Your task to perform on an android device: change alarm snooze length Image 0: 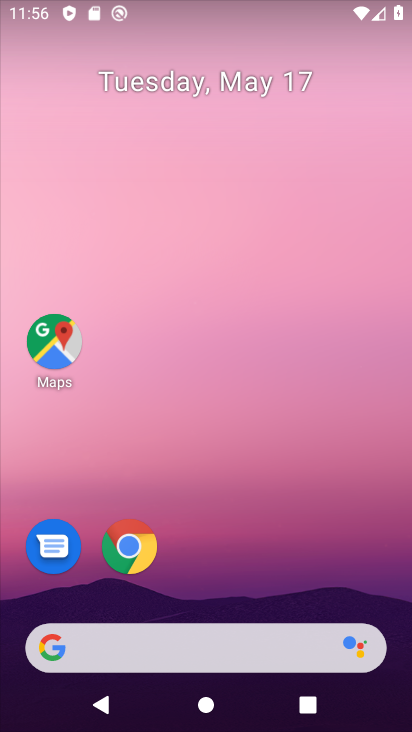
Step 0: drag from (203, 618) to (280, 125)
Your task to perform on an android device: change alarm snooze length Image 1: 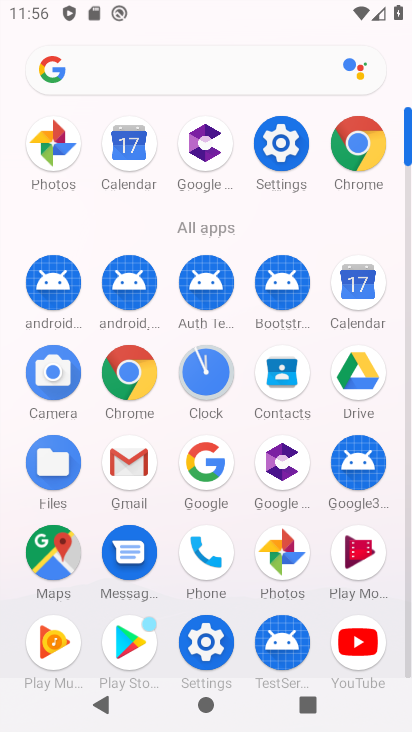
Step 1: click (214, 392)
Your task to perform on an android device: change alarm snooze length Image 2: 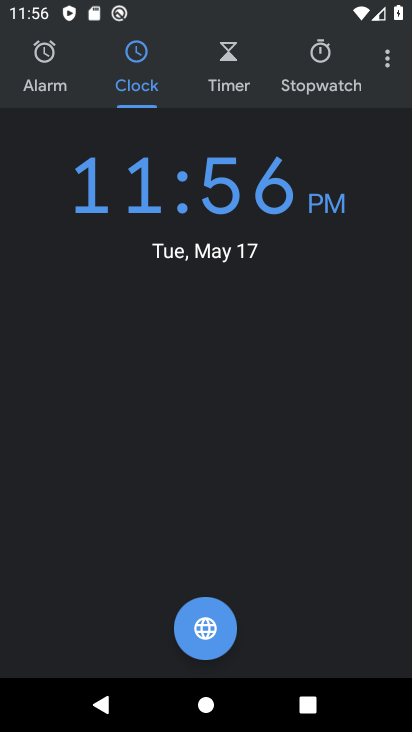
Step 2: click (396, 76)
Your task to perform on an android device: change alarm snooze length Image 3: 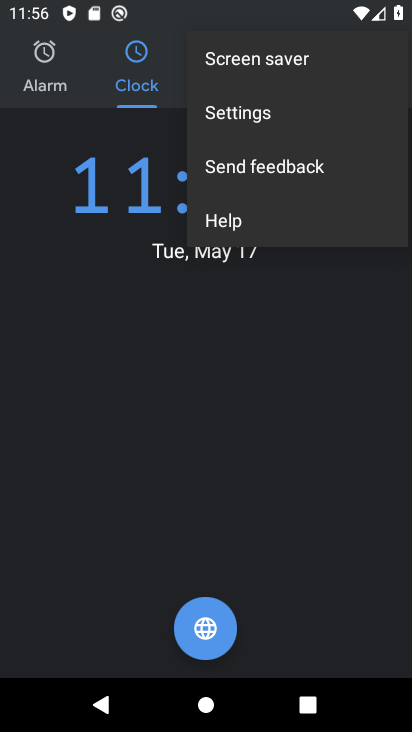
Step 3: click (349, 125)
Your task to perform on an android device: change alarm snooze length Image 4: 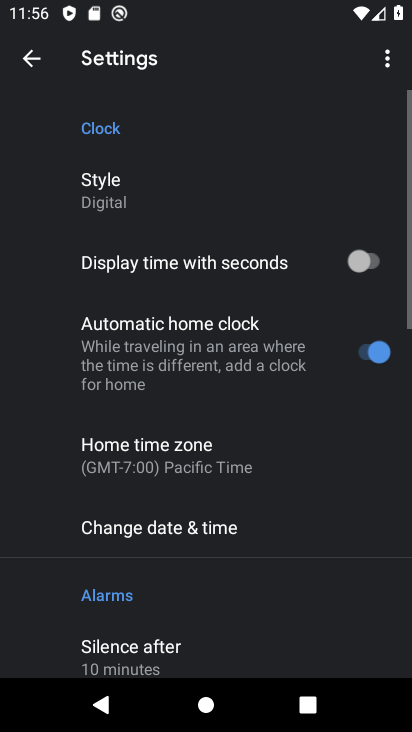
Step 4: drag from (214, 529) to (304, 222)
Your task to perform on an android device: change alarm snooze length Image 5: 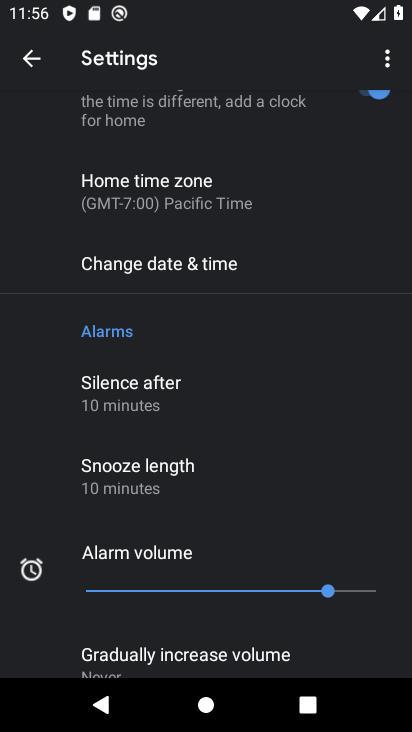
Step 5: click (291, 491)
Your task to perform on an android device: change alarm snooze length Image 6: 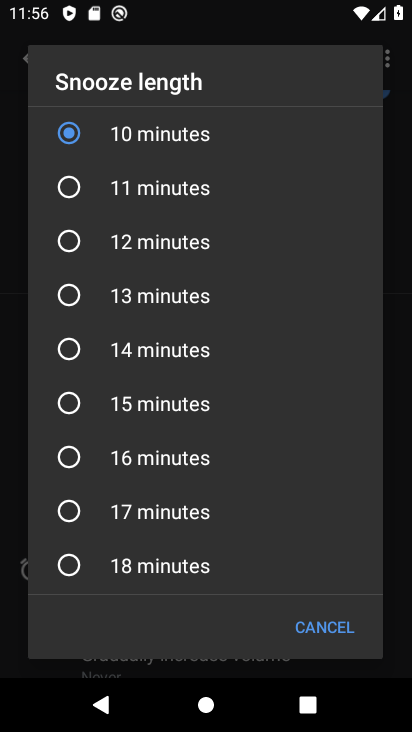
Step 6: drag from (201, 567) to (241, 311)
Your task to perform on an android device: change alarm snooze length Image 7: 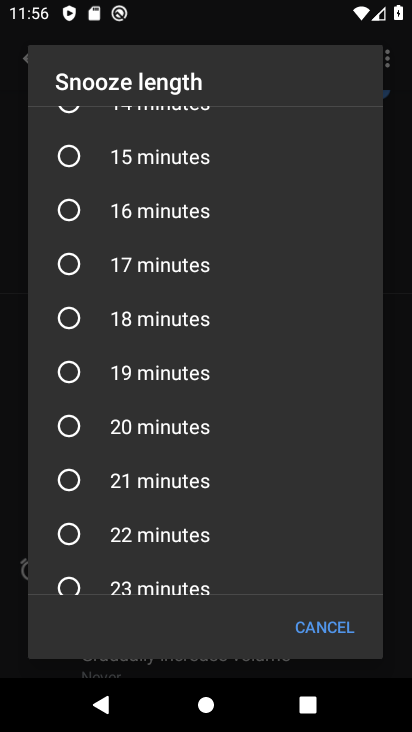
Step 7: click (168, 420)
Your task to perform on an android device: change alarm snooze length Image 8: 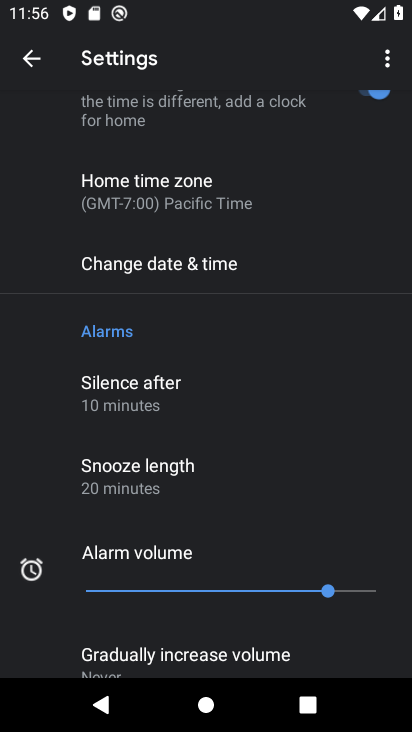
Step 8: task complete